Your task to perform on an android device: Open settings Image 0: 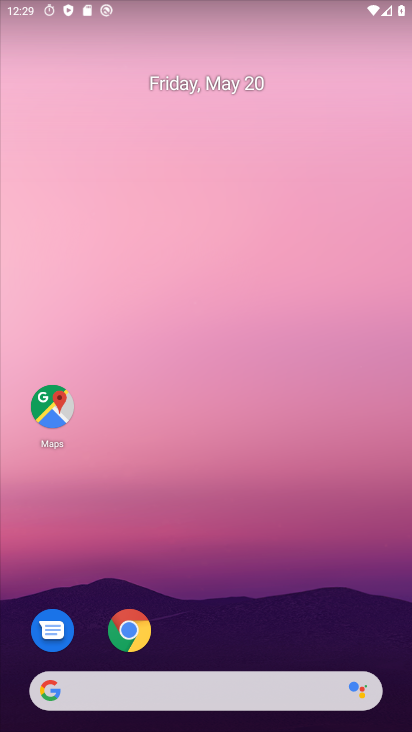
Step 0: drag from (240, 607) to (246, 79)
Your task to perform on an android device: Open settings Image 1: 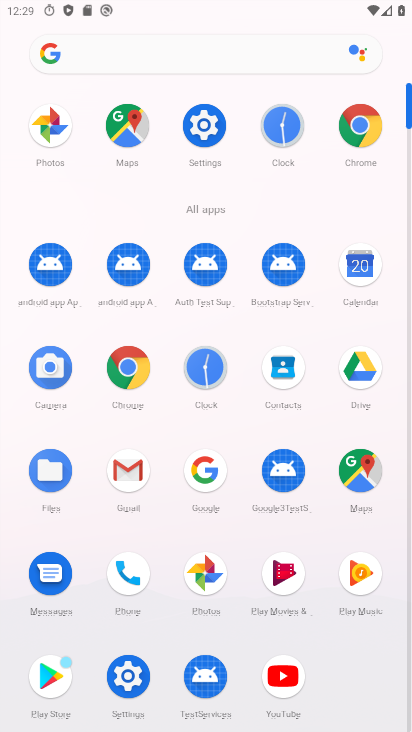
Step 1: click (203, 131)
Your task to perform on an android device: Open settings Image 2: 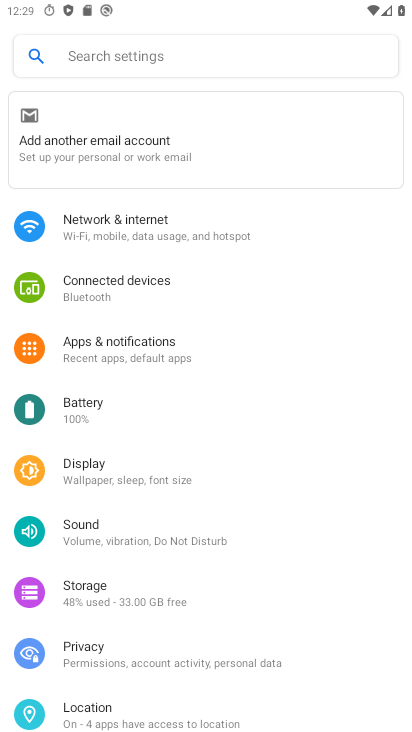
Step 2: task complete